Your task to perform on an android device: Go to location settings Image 0: 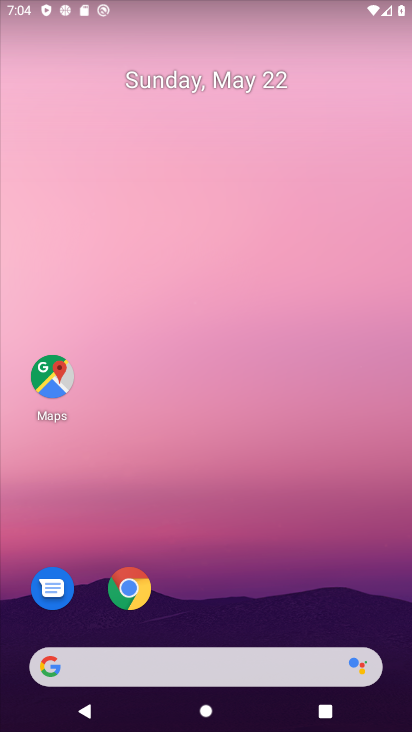
Step 0: drag from (215, 356) to (207, 50)
Your task to perform on an android device: Go to location settings Image 1: 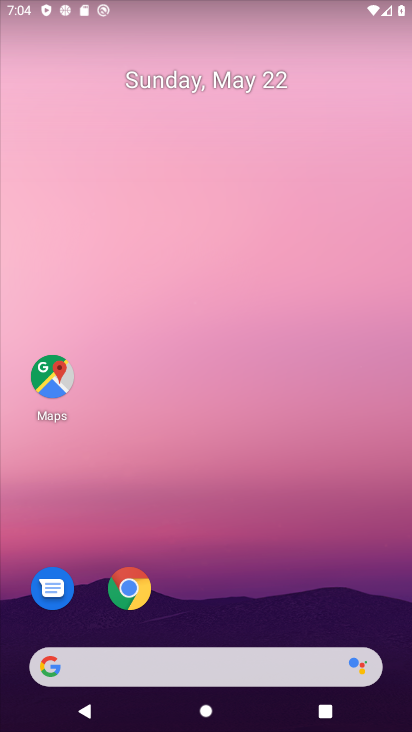
Step 1: drag from (245, 512) to (225, 53)
Your task to perform on an android device: Go to location settings Image 2: 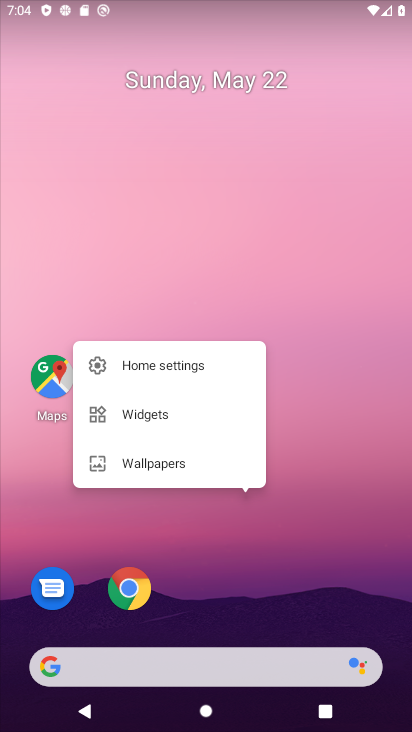
Step 2: click (309, 538)
Your task to perform on an android device: Go to location settings Image 3: 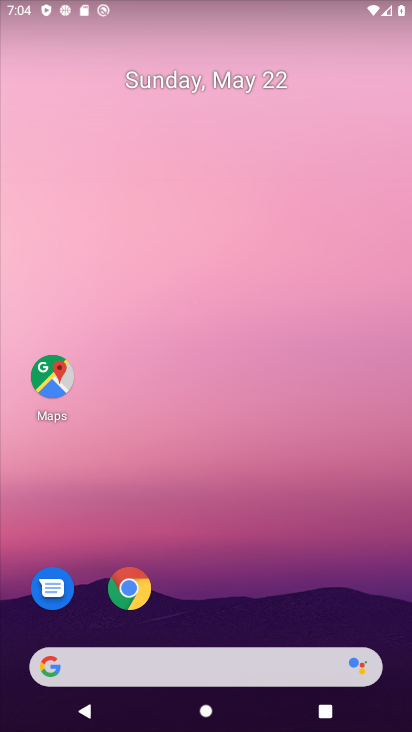
Step 3: drag from (277, 514) to (199, 3)
Your task to perform on an android device: Go to location settings Image 4: 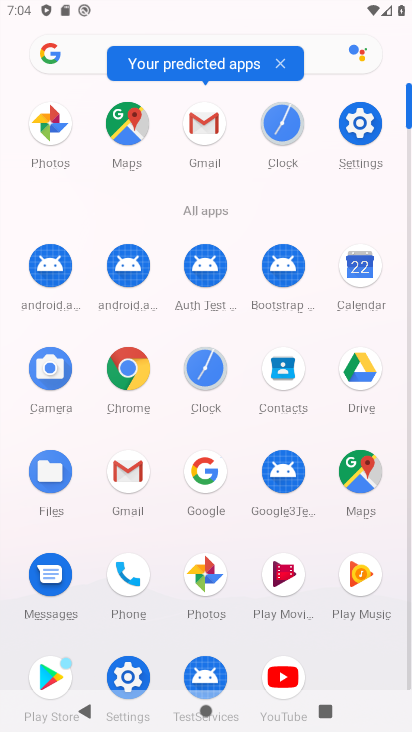
Step 4: click (357, 120)
Your task to perform on an android device: Go to location settings Image 5: 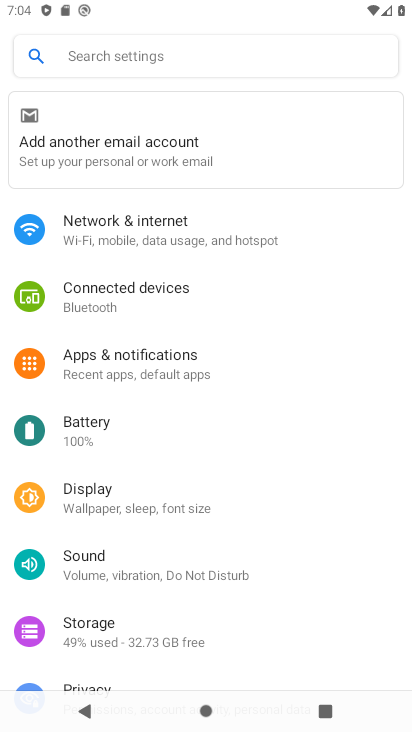
Step 5: drag from (256, 516) to (256, 283)
Your task to perform on an android device: Go to location settings Image 6: 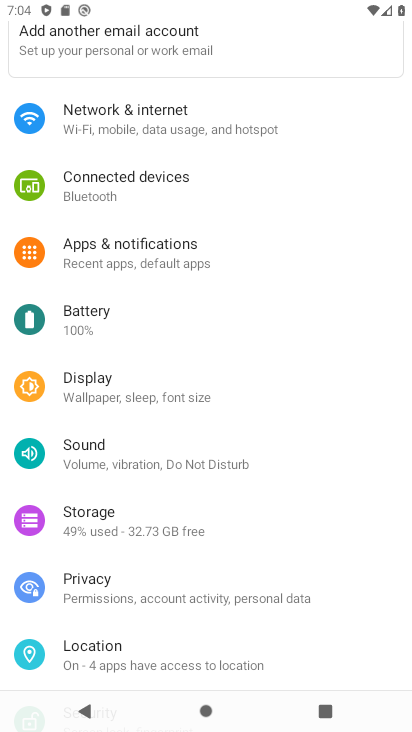
Step 6: click (94, 637)
Your task to perform on an android device: Go to location settings Image 7: 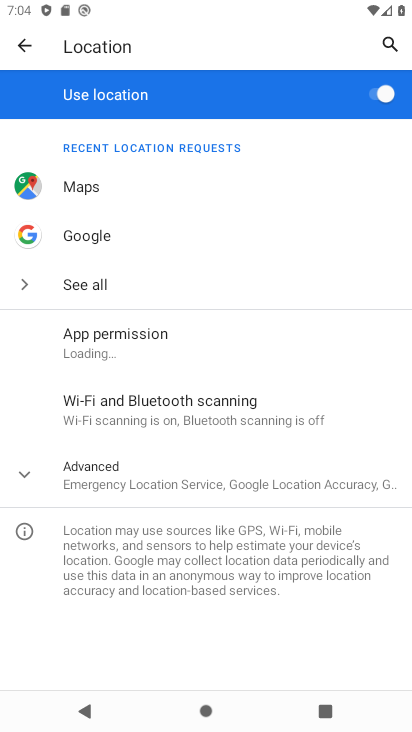
Step 7: task complete